Your task to perform on an android device: Show me popular games on the Play Store Image 0: 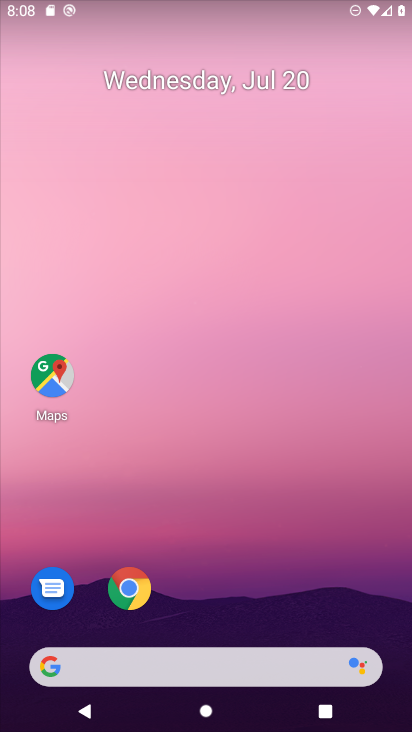
Step 0: click (203, 203)
Your task to perform on an android device: Show me popular games on the Play Store Image 1: 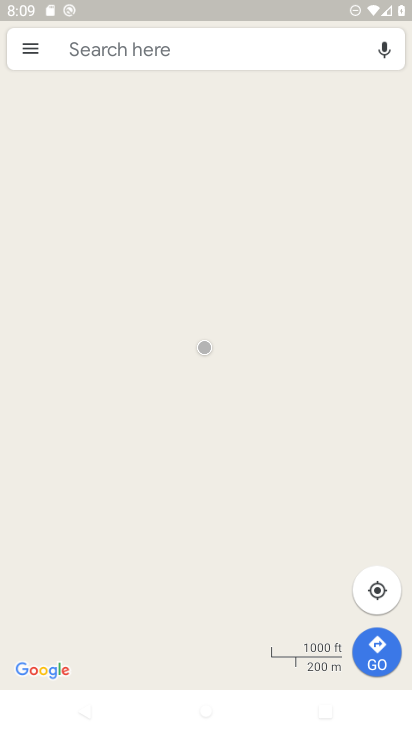
Step 1: press home button
Your task to perform on an android device: Show me popular games on the Play Store Image 2: 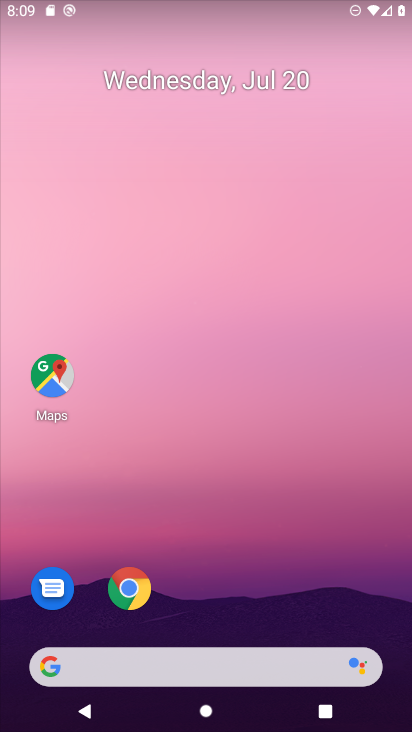
Step 2: drag from (54, 701) to (239, 205)
Your task to perform on an android device: Show me popular games on the Play Store Image 3: 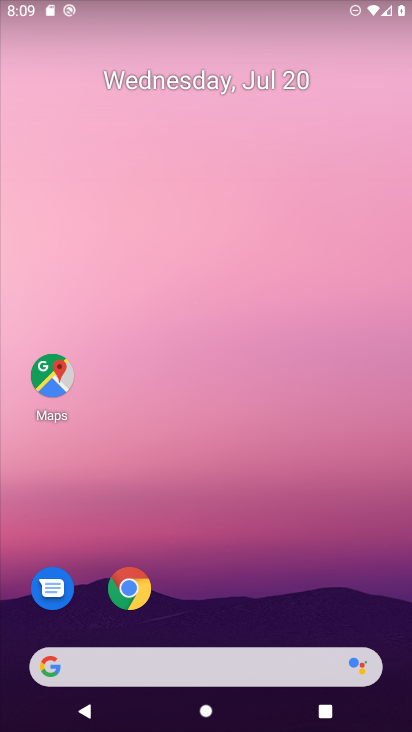
Step 3: drag from (50, 689) to (409, 43)
Your task to perform on an android device: Show me popular games on the Play Store Image 4: 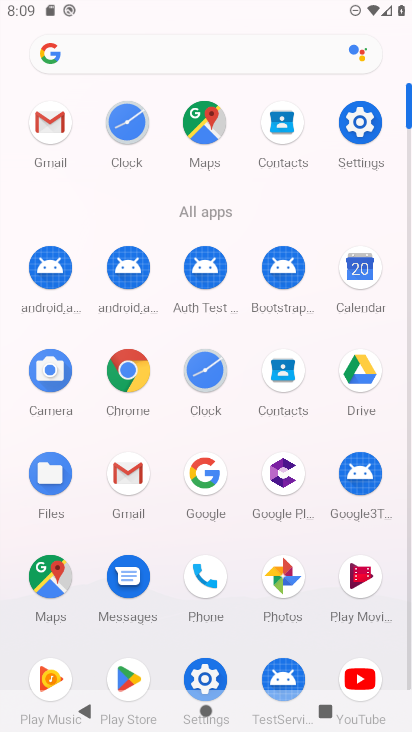
Step 4: click (115, 684)
Your task to perform on an android device: Show me popular games on the Play Store Image 5: 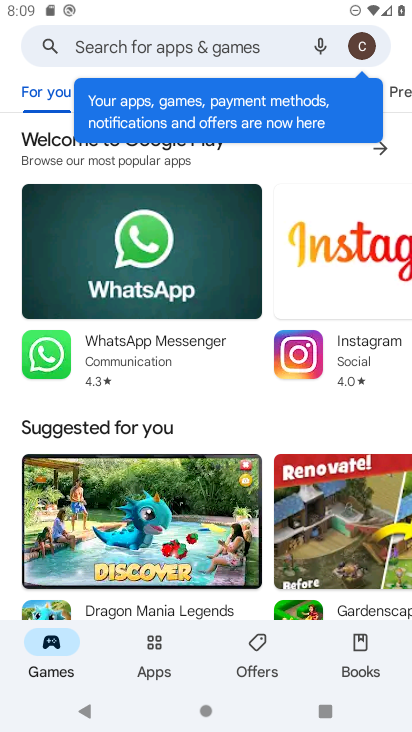
Step 5: click (123, 46)
Your task to perform on an android device: Show me popular games on the Play Store Image 6: 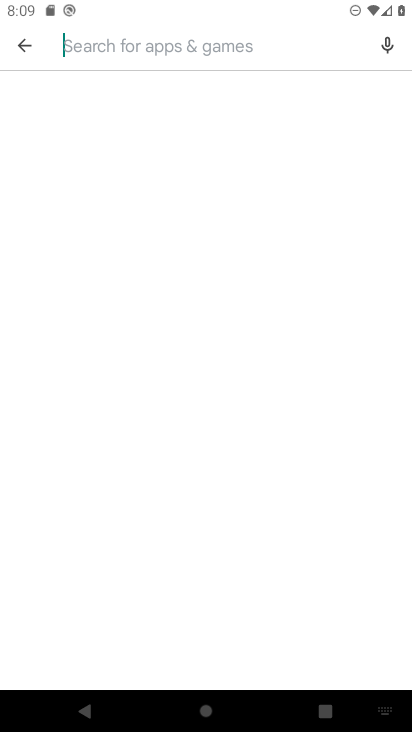
Step 6: type "popular games "
Your task to perform on an android device: Show me popular games on the Play Store Image 7: 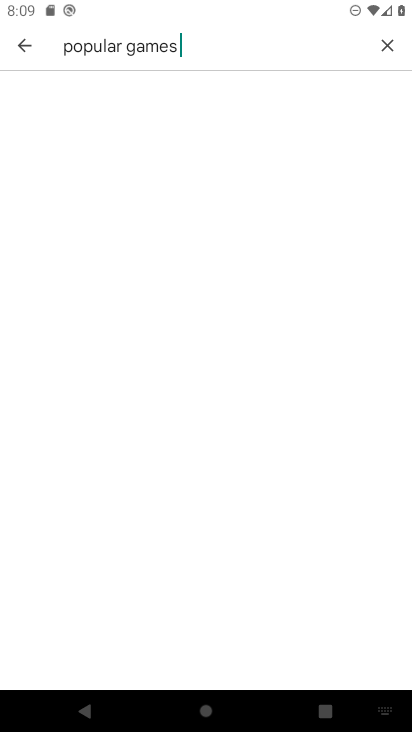
Step 7: type ""
Your task to perform on an android device: Show me popular games on the Play Store Image 8: 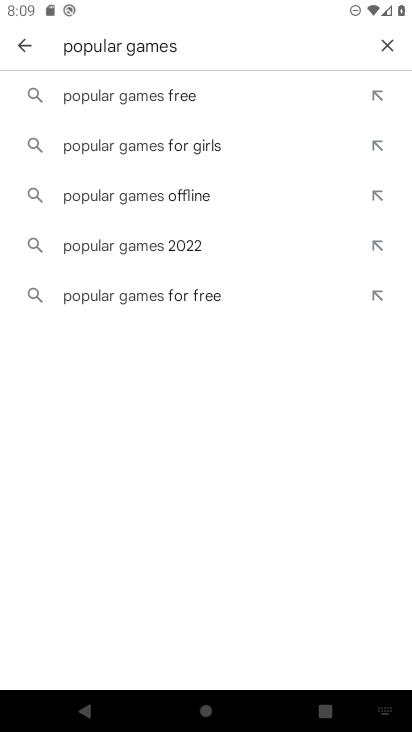
Step 8: type ""
Your task to perform on an android device: Show me popular games on the Play Store Image 9: 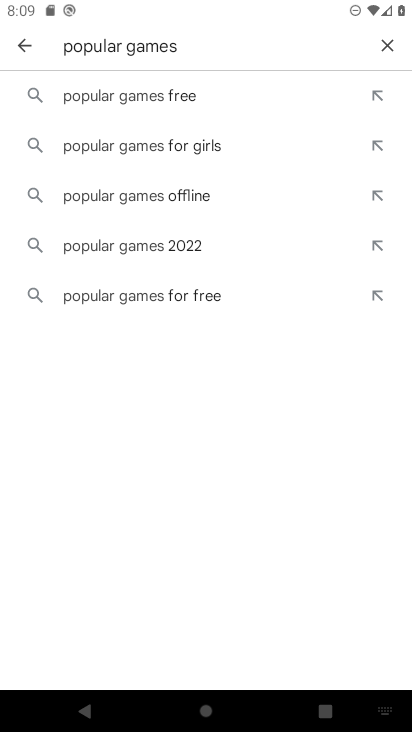
Step 9: type ""
Your task to perform on an android device: Show me popular games on the Play Store Image 10: 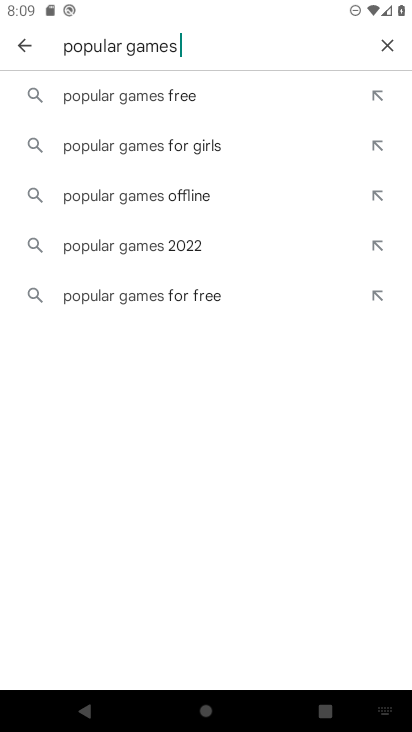
Step 10: task complete